Your task to perform on an android device: toggle sleep mode Image 0: 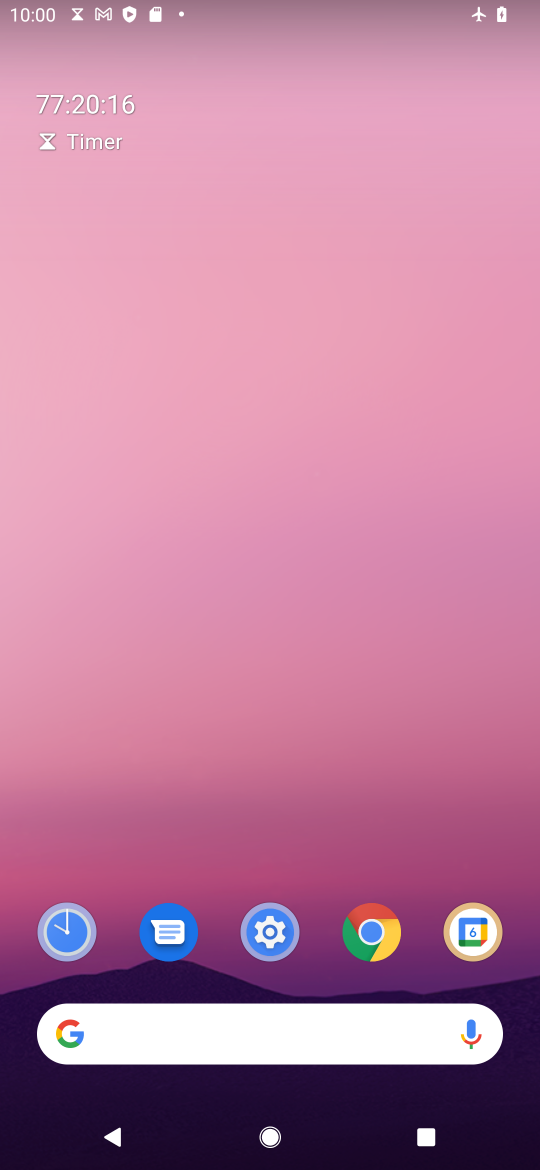
Step 0: click (275, 932)
Your task to perform on an android device: toggle sleep mode Image 1: 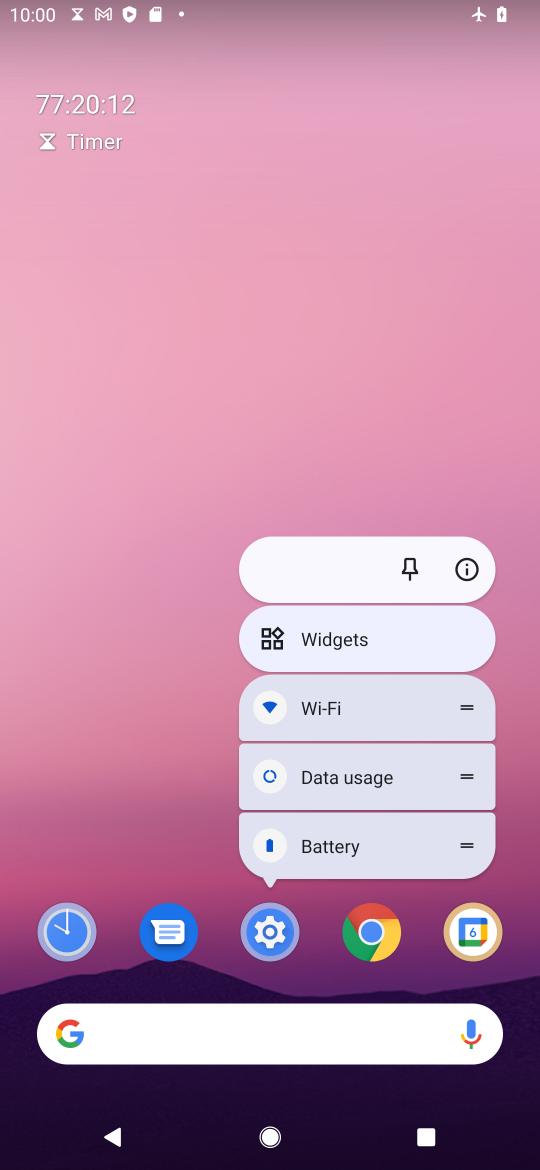
Step 1: click (275, 932)
Your task to perform on an android device: toggle sleep mode Image 2: 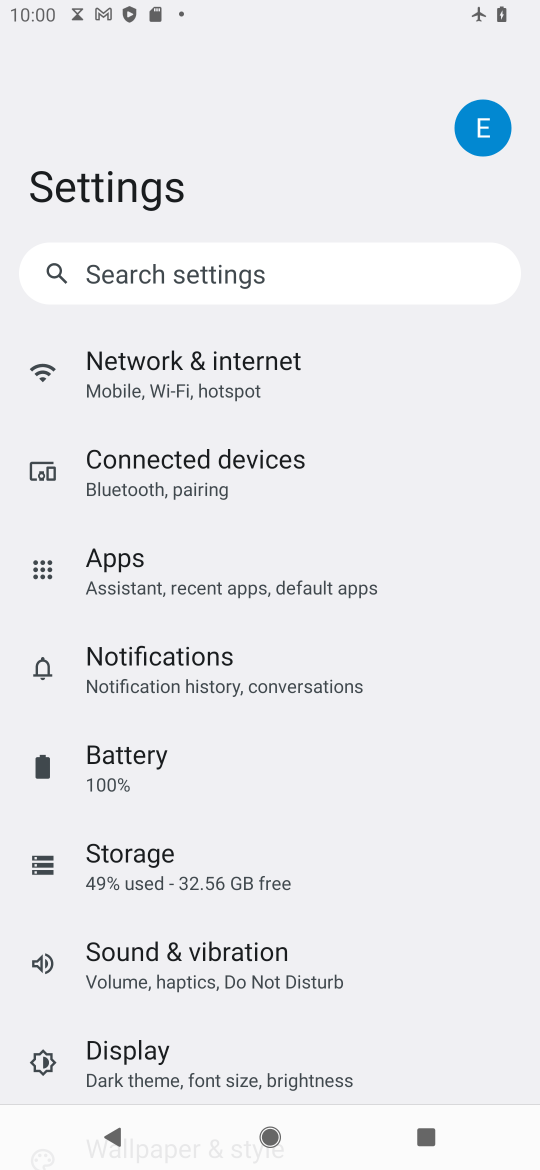
Step 2: click (297, 1065)
Your task to perform on an android device: toggle sleep mode Image 3: 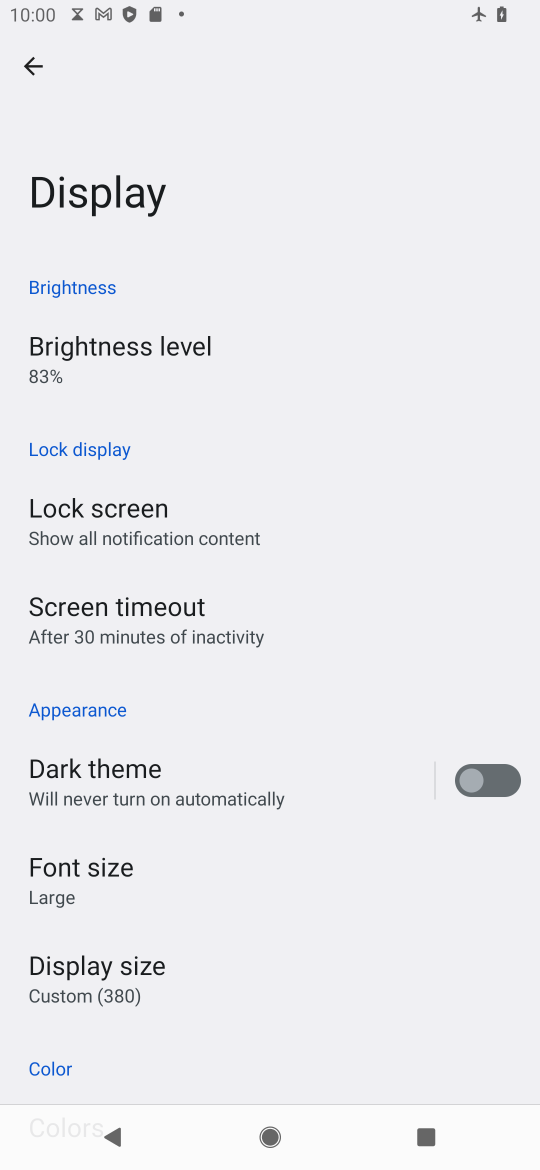
Step 3: task complete